Your task to perform on an android device: change the clock display to analog Image 0: 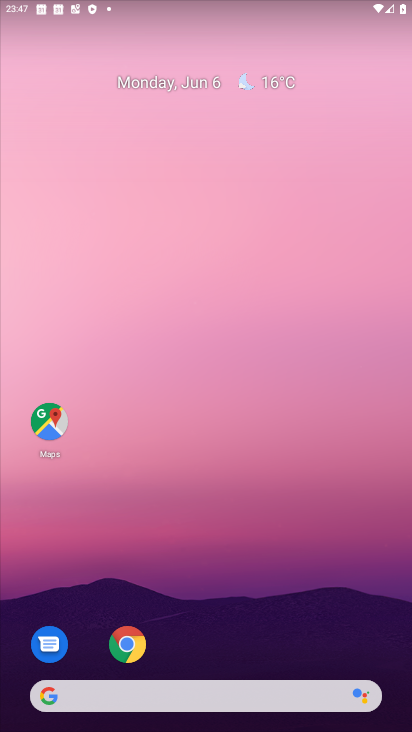
Step 0: drag from (242, 603) to (192, 11)
Your task to perform on an android device: change the clock display to analog Image 1: 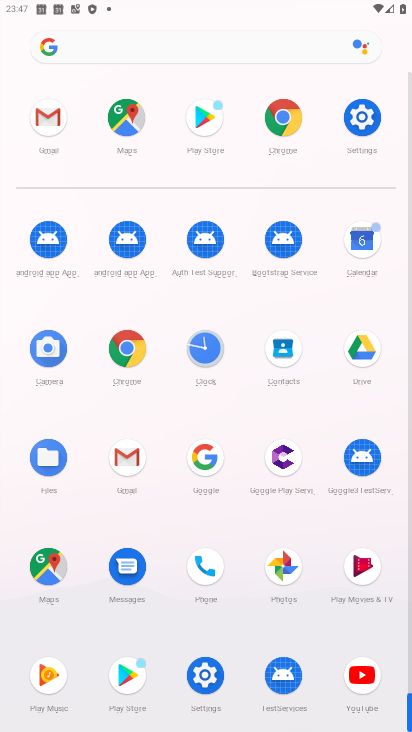
Step 1: click (202, 342)
Your task to perform on an android device: change the clock display to analog Image 2: 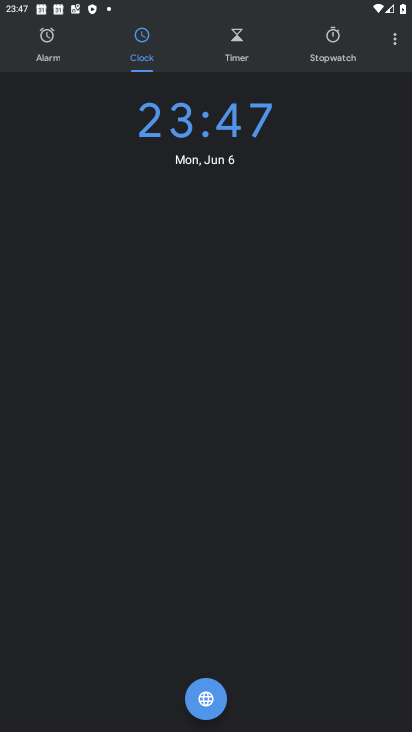
Step 2: drag from (394, 35) to (353, 81)
Your task to perform on an android device: change the clock display to analog Image 3: 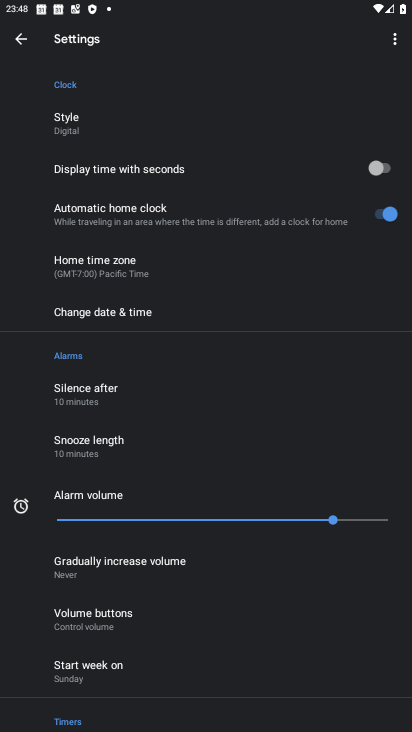
Step 3: click (94, 127)
Your task to perform on an android device: change the clock display to analog Image 4: 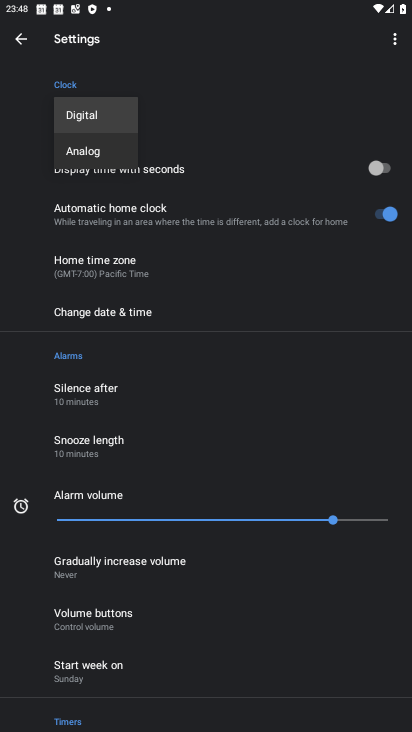
Step 4: click (99, 143)
Your task to perform on an android device: change the clock display to analog Image 5: 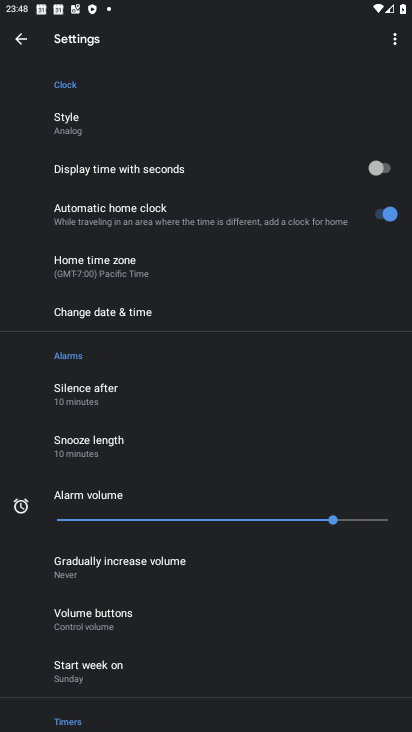
Step 5: task complete